Your task to perform on an android device: Open Yahoo.com Image 0: 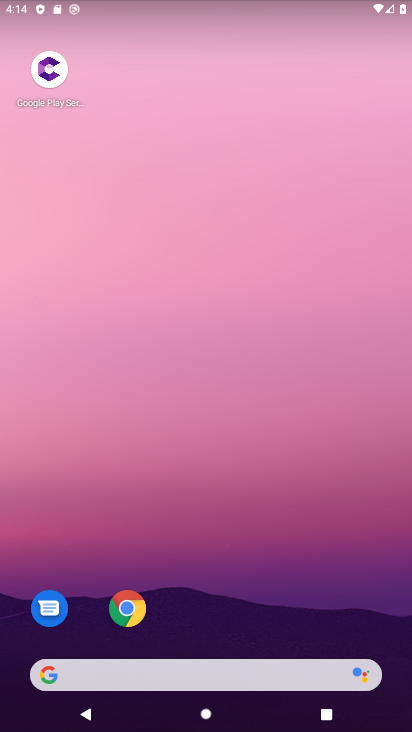
Step 0: click (128, 605)
Your task to perform on an android device: Open Yahoo.com Image 1: 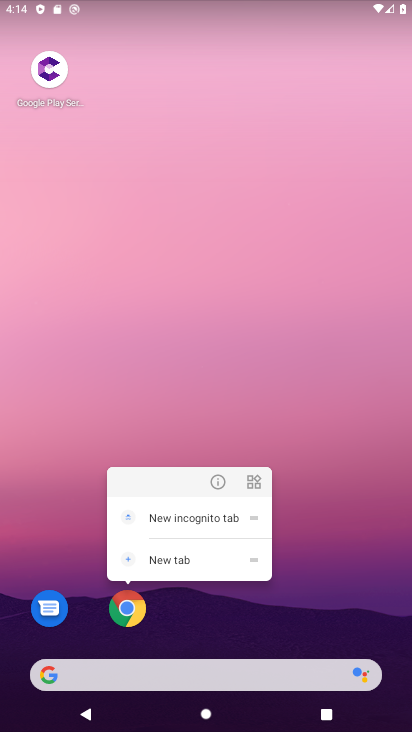
Step 1: click (121, 602)
Your task to perform on an android device: Open Yahoo.com Image 2: 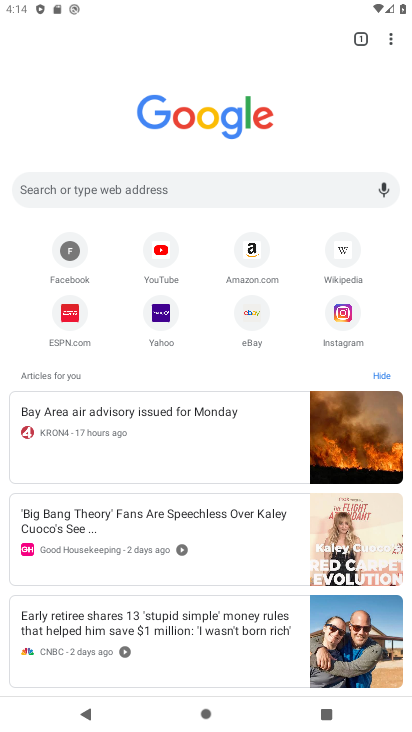
Step 2: click (168, 336)
Your task to perform on an android device: Open Yahoo.com Image 3: 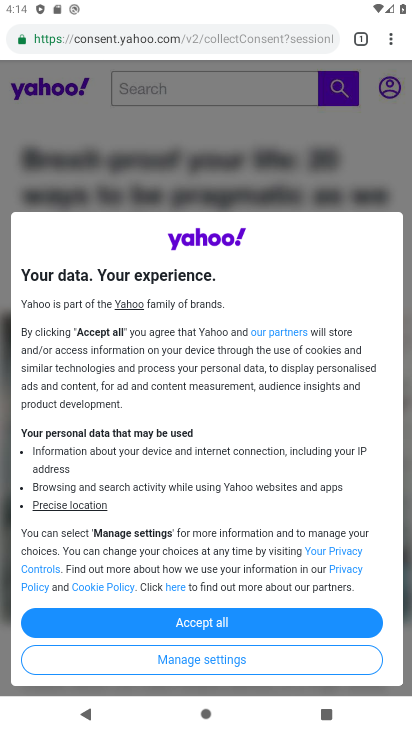
Step 3: task complete